Your task to perform on an android device: change alarm snooze length Image 0: 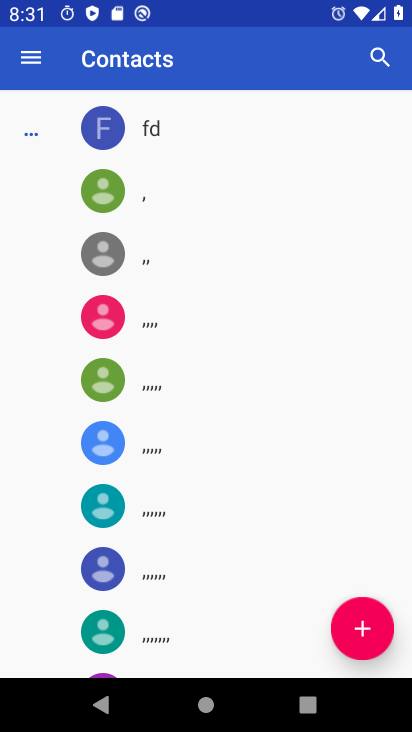
Step 0: press home button
Your task to perform on an android device: change alarm snooze length Image 1: 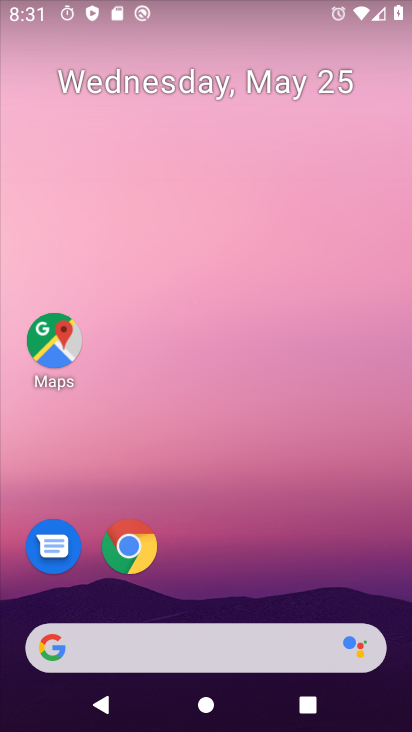
Step 1: drag from (190, 607) to (168, 92)
Your task to perform on an android device: change alarm snooze length Image 2: 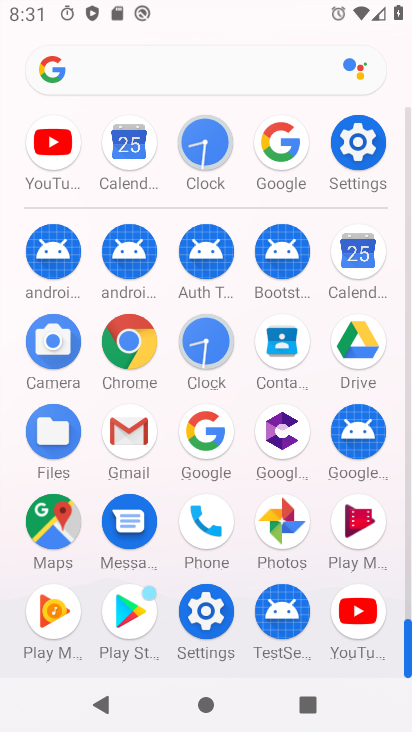
Step 2: click (202, 140)
Your task to perform on an android device: change alarm snooze length Image 3: 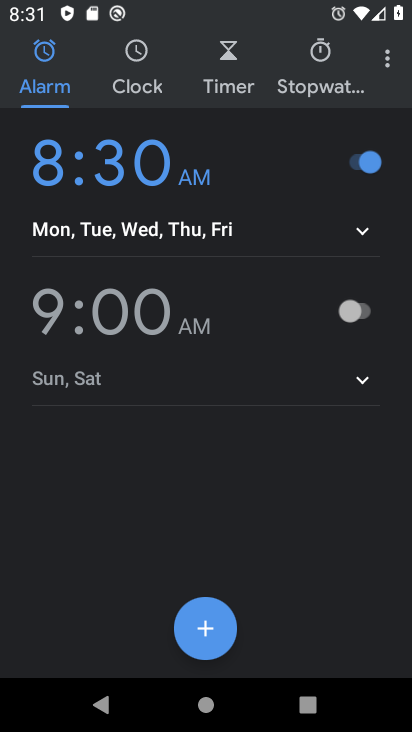
Step 3: click (388, 60)
Your task to perform on an android device: change alarm snooze length Image 4: 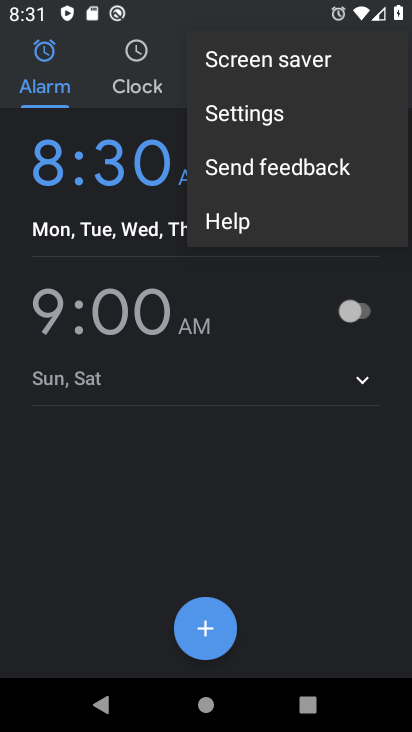
Step 4: click (281, 121)
Your task to perform on an android device: change alarm snooze length Image 5: 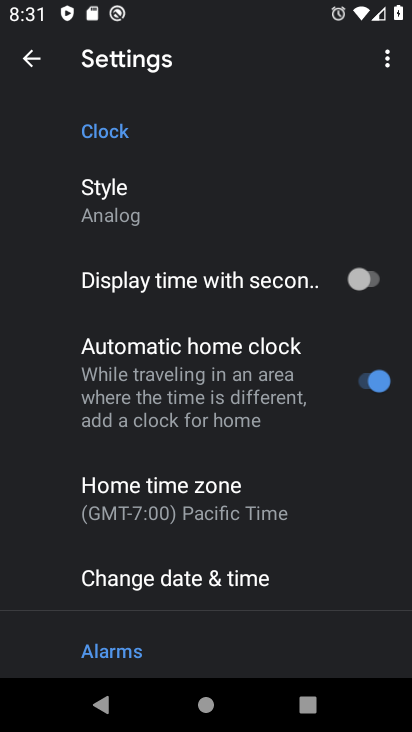
Step 5: task complete